Your task to perform on an android device: add a contact Image 0: 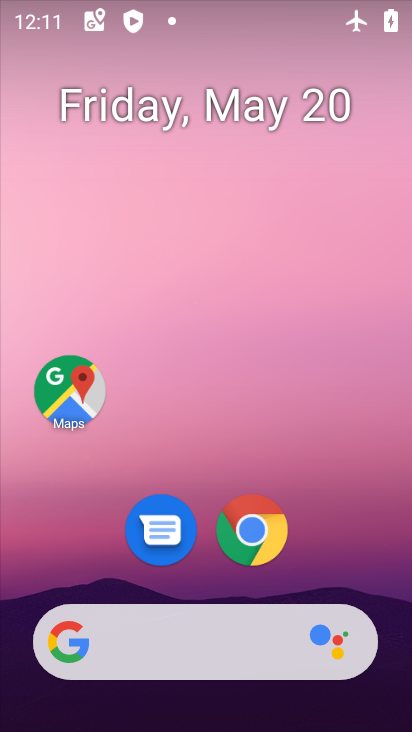
Step 0: drag from (183, 650) to (400, 11)
Your task to perform on an android device: add a contact Image 1: 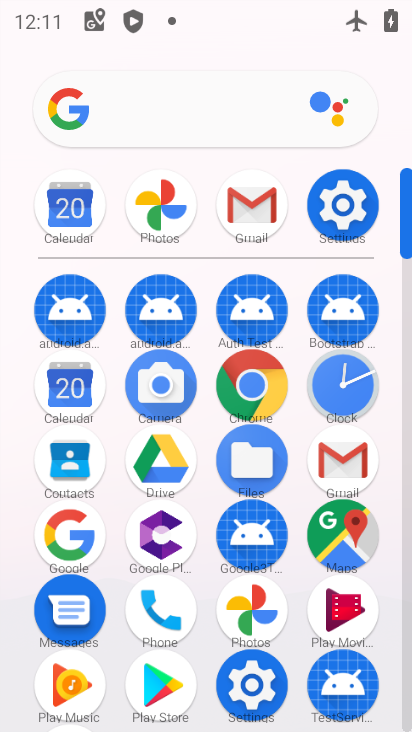
Step 1: click (89, 466)
Your task to perform on an android device: add a contact Image 2: 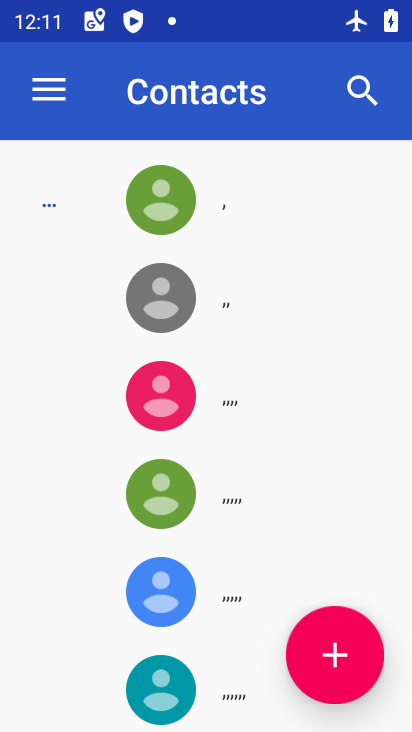
Step 2: click (342, 658)
Your task to perform on an android device: add a contact Image 3: 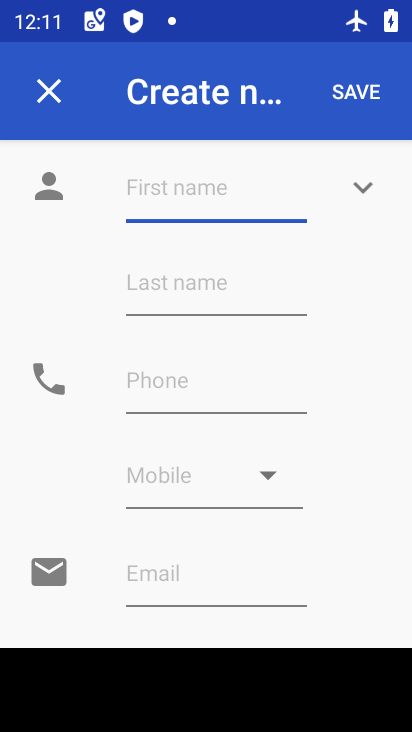
Step 3: type "ghvj"
Your task to perform on an android device: add a contact Image 4: 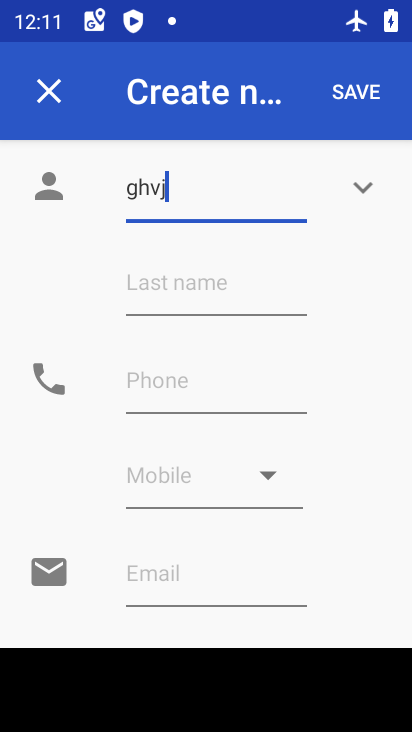
Step 4: click (163, 391)
Your task to perform on an android device: add a contact Image 5: 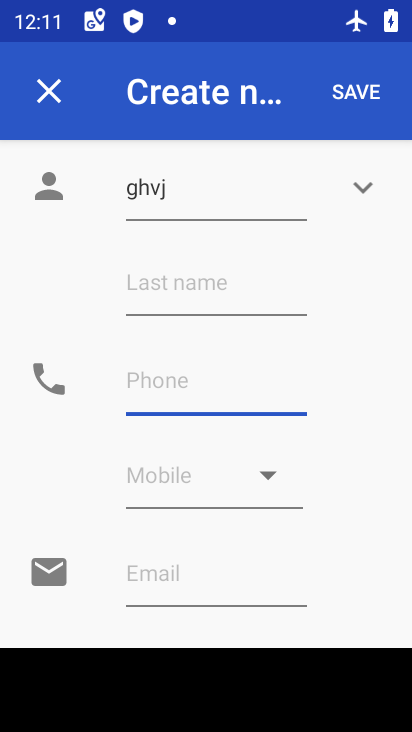
Step 5: type "78t98"
Your task to perform on an android device: add a contact Image 6: 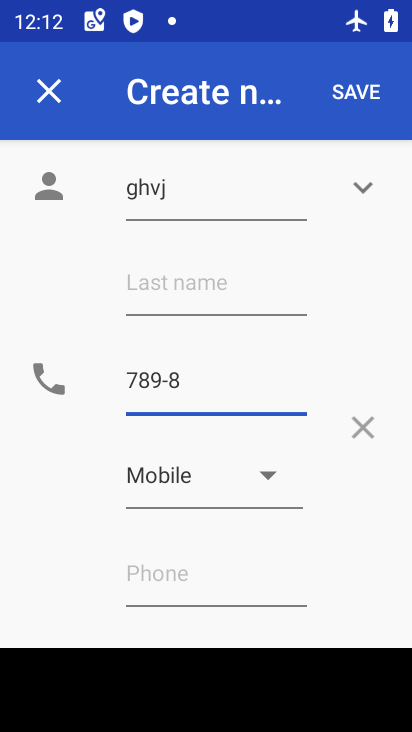
Step 6: click (363, 91)
Your task to perform on an android device: add a contact Image 7: 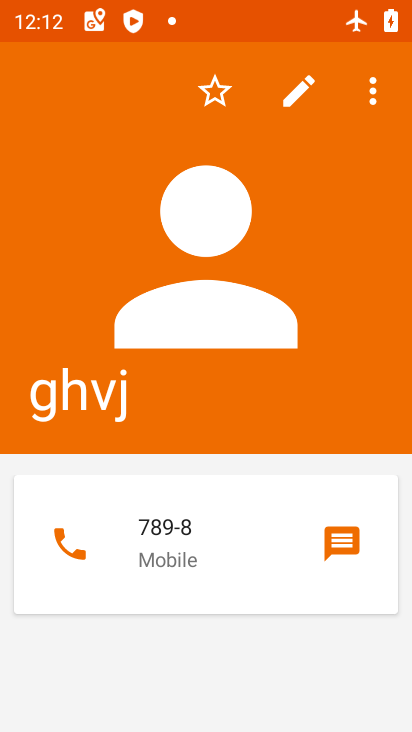
Step 7: task complete